Your task to perform on an android device: search for starred emails in the gmail app Image 0: 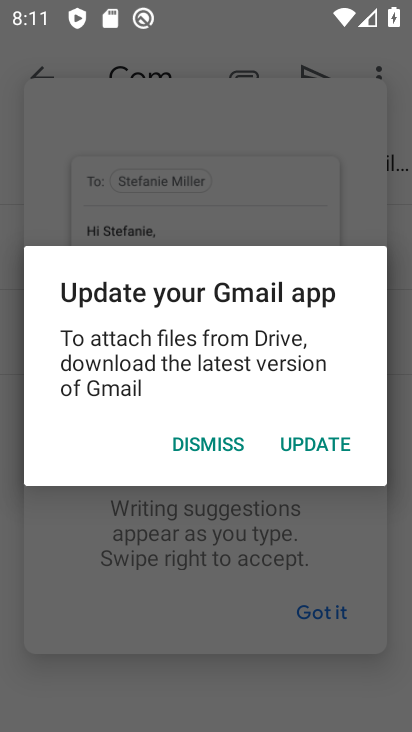
Step 0: press home button
Your task to perform on an android device: search for starred emails in the gmail app Image 1: 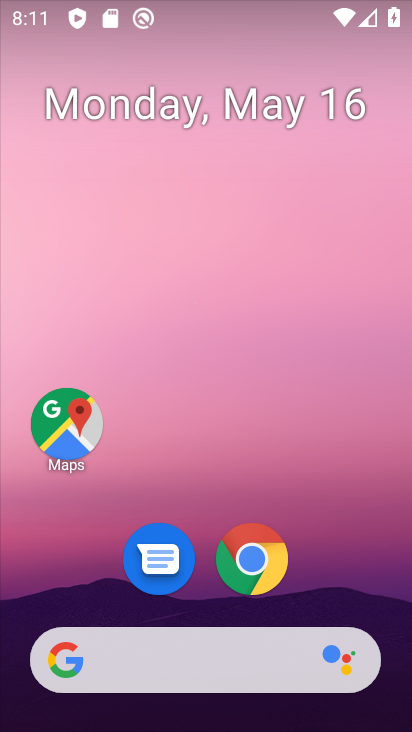
Step 1: drag from (329, 603) to (383, 124)
Your task to perform on an android device: search for starred emails in the gmail app Image 2: 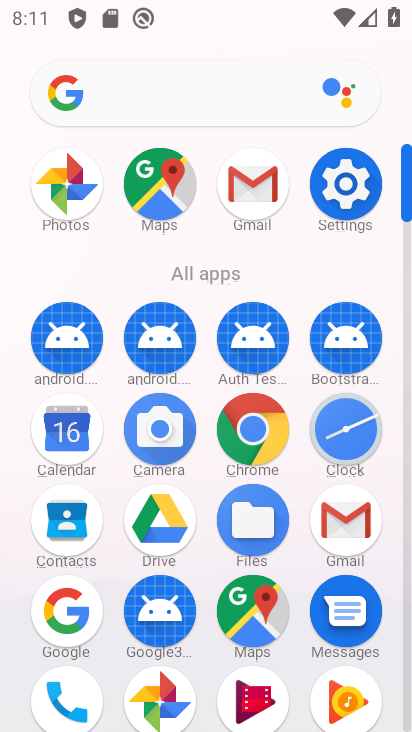
Step 2: click (332, 525)
Your task to perform on an android device: search for starred emails in the gmail app Image 3: 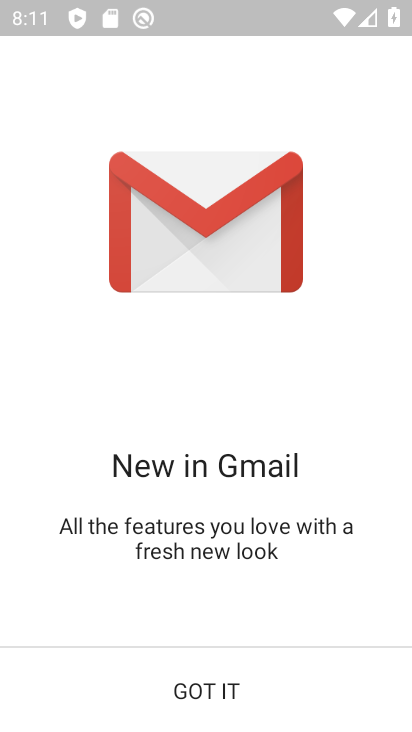
Step 3: click (220, 686)
Your task to perform on an android device: search for starred emails in the gmail app Image 4: 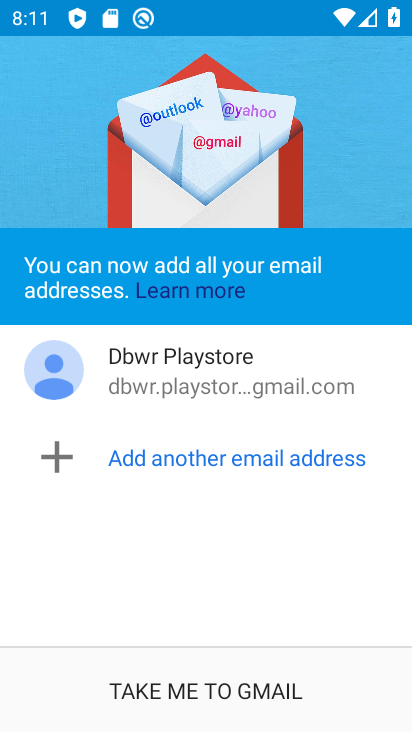
Step 4: click (220, 686)
Your task to perform on an android device: search for starred emails in the gmail app Image 5: 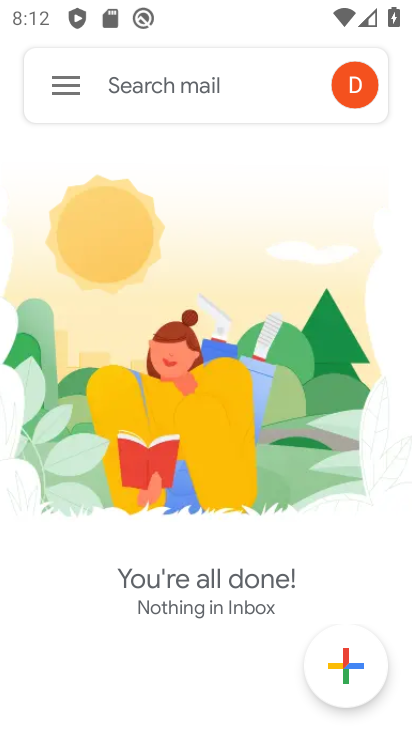
Step 5: click (74, 94)
Your task to perform on an android device: search for starred emails in the gmail app Image 6: 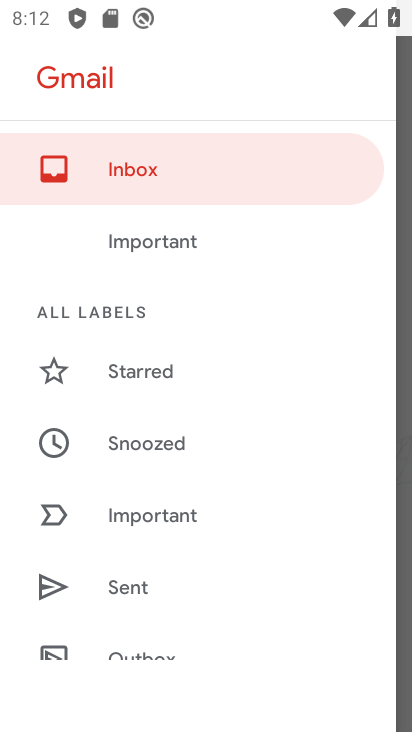
Step 6: click (133, 375)
Your task to perform on an android device: search for starred emails in the gmail app Image 7: 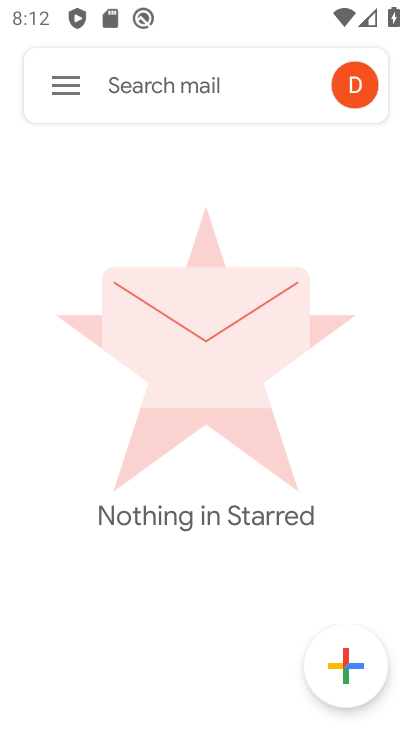
Step 7: task complete